Your task to perform on an android device: turn on improve location accuracy Image 0: 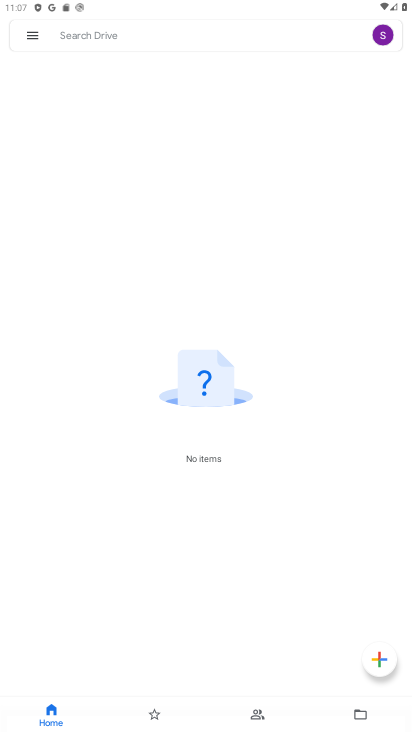
Step 0: press home button
Your task to perform on an android device: turn on improve location accuracy Image 1: 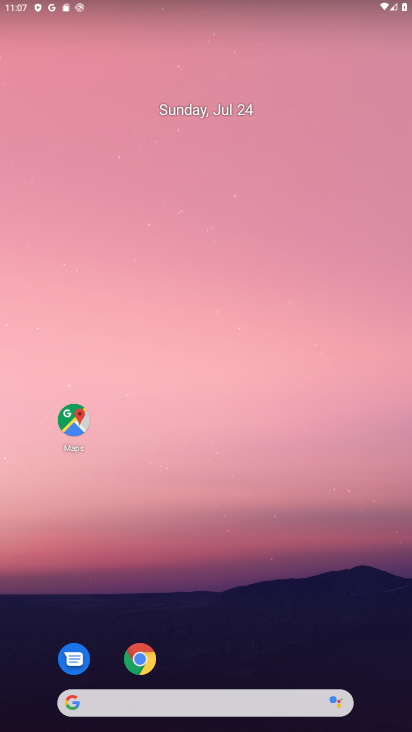
Step 1: drag from (213, 728) to (223, 22)
Your task to perform on an android device: turn on improve location accuracy Image 2: 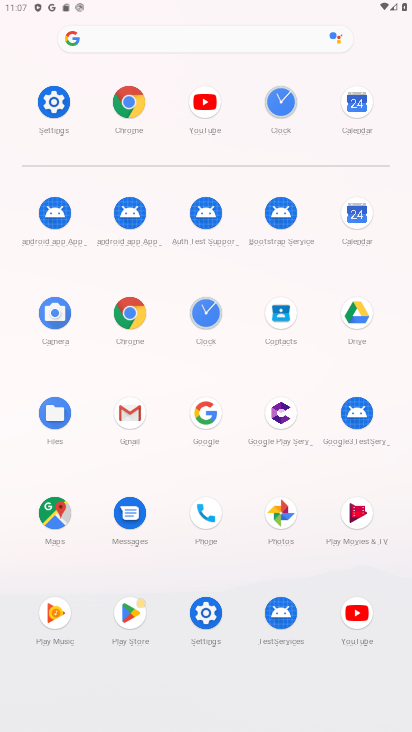
Step 2: click (51, 90)
Your task to perform on an android device: turn on improve location accuracy Image 3: 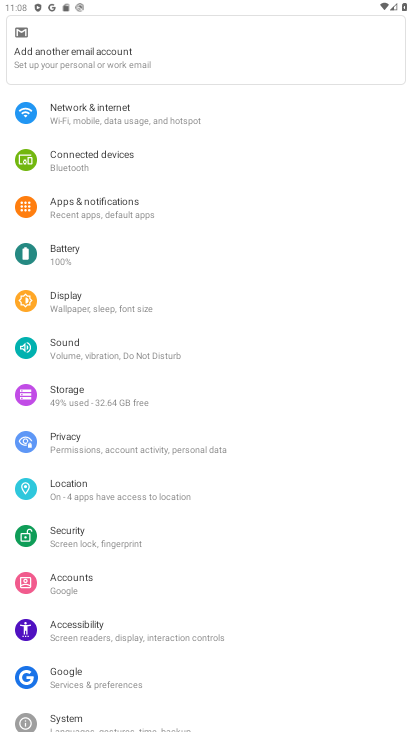
Step 3: click (101, 477)
Your task to perform on an android device: turn on improve location accuracy Image 4: 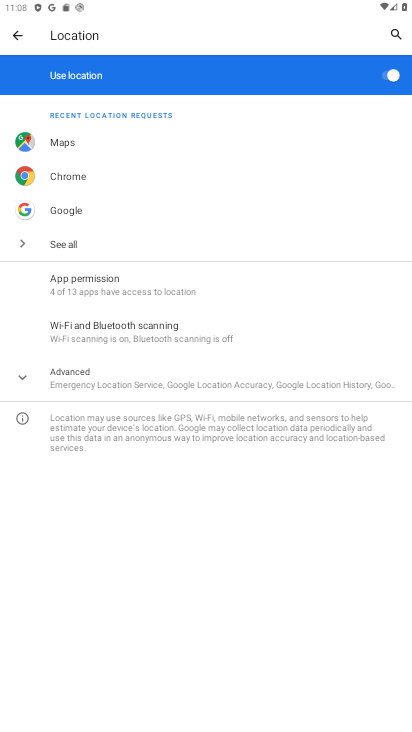
Step 4: click (137, 326)
Your task to perform on an android device: turn on improve location accuracy Image 5: 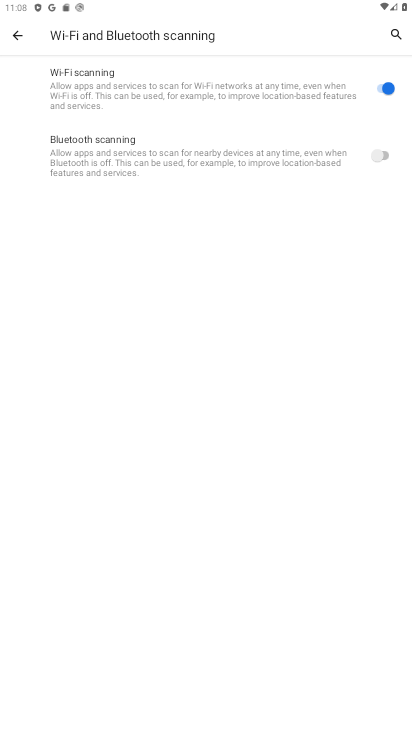
Step 5: click (27, 30)
Your task to perform on an android device: turn on improve location accuracy Image 6: 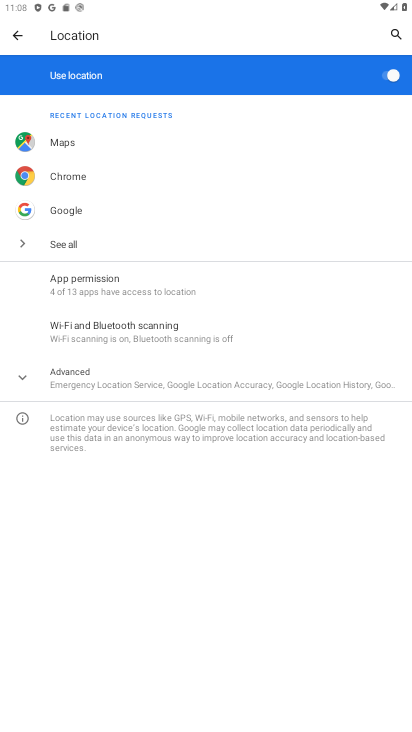
Step 6: click (141, 301)
Your task to perform on an android device: turn on improve location accuracy Image 7: 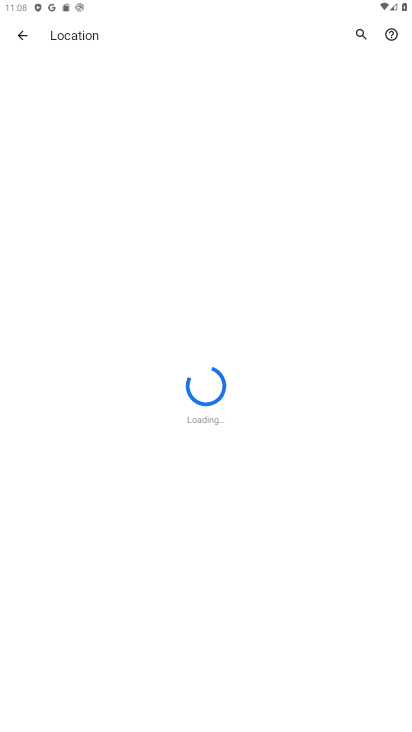
Step 7: click (10, 26)
Your task to perform on an android device: turn on improve location accuracy Image 8: 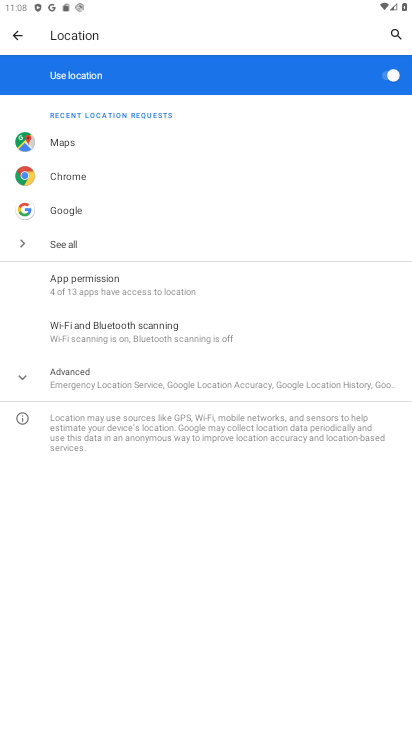
Step 8: click (143, 365)
Your task to perform on an android device: turn on improve location accuracy Image 9: 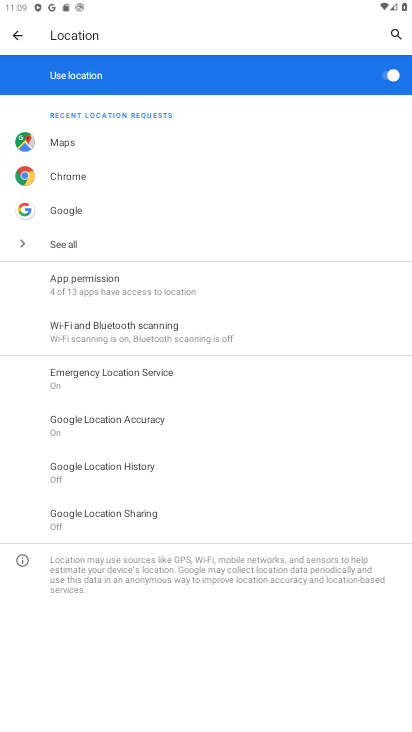
Step 9: task complete